Your task to perform on an android device: Open settings Image 0: 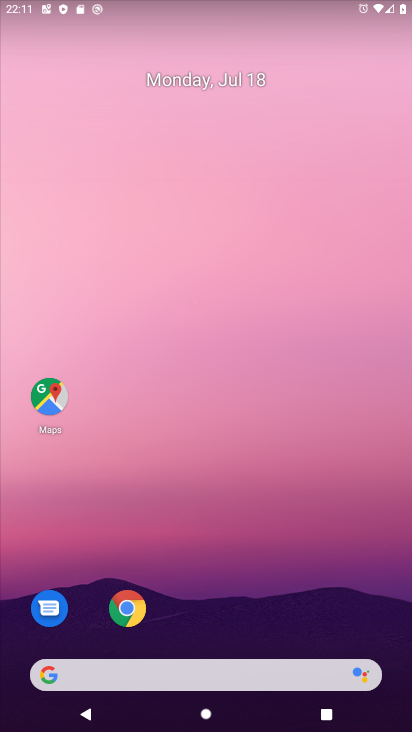
Step 0: drag from (29, 698) to (192, 78)
Your task to perform on an android device: Open settings Image 1: 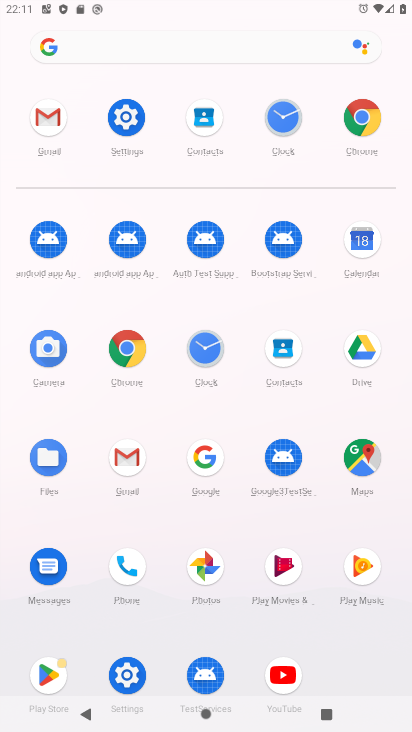
Step 1: click (131, 666)
Your task to perform on an android device: Open settings Image 2: 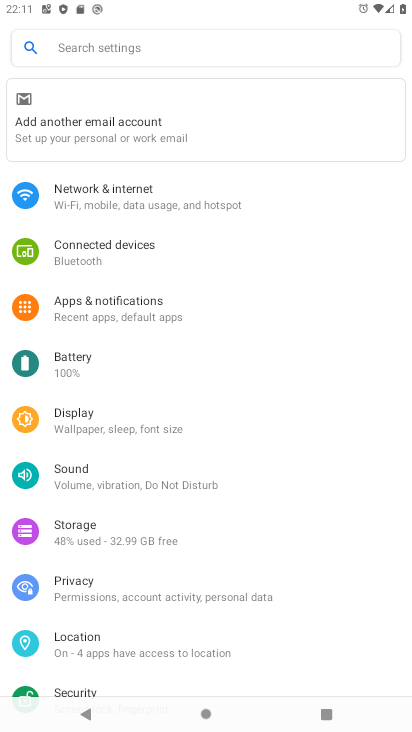
Step 2: task complete